Your task to perform on an android device: toggle location history Image 0: 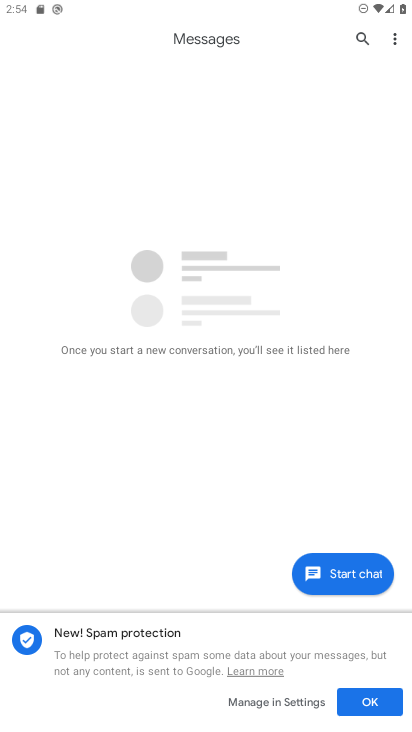
Step 0: press home button
Your task to perform on an android device: toggle location history Image 1: 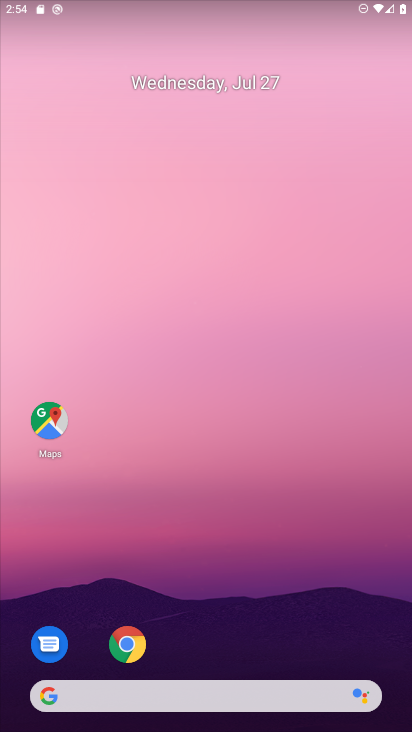
Step 1: drag from (216, 576) to (245, 40)
Your task to perform on an android device: toggle location history Image 2: 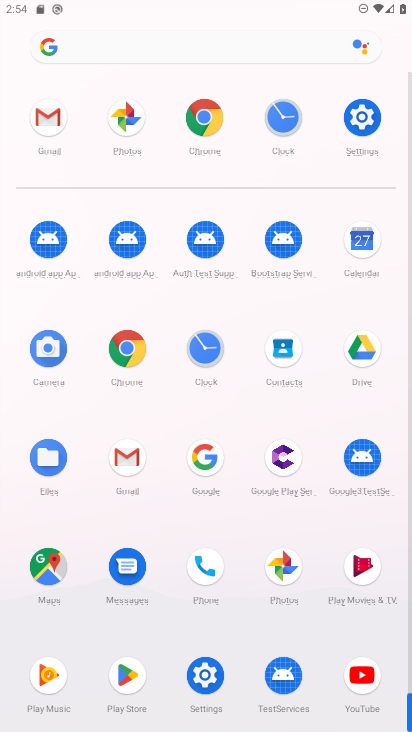
Step 2: click (205, 679)
Your task to perform on an android device: toggle location history Image 3: 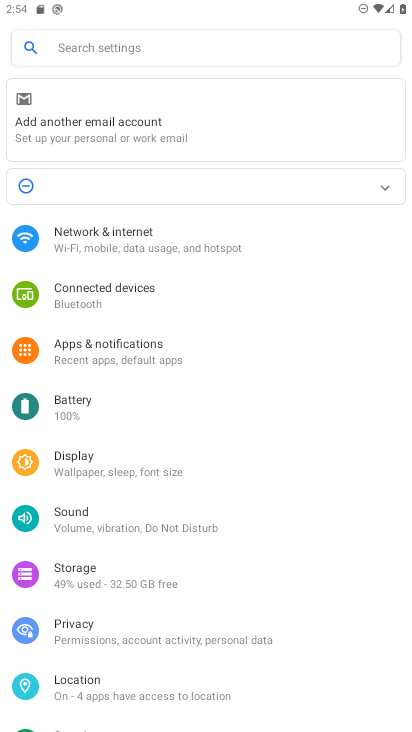
Step 3: click (113, 699)
Your task to perform on an android device: toggle location history Image 4: 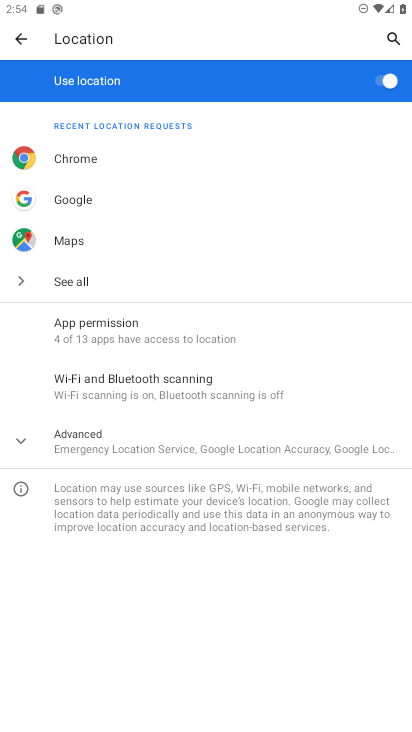
Step 4: click (135, 436)
Your task to perform on an android device: toggle location history Image 5: 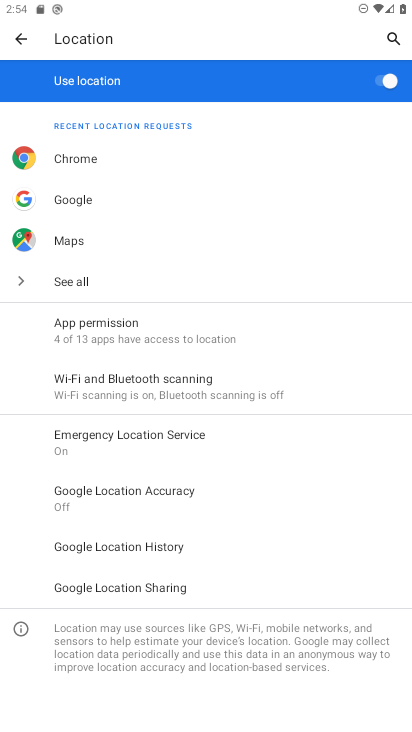
Step 5: click (139, 543)
Your task to perform on an android device: toggle location history Image 6: 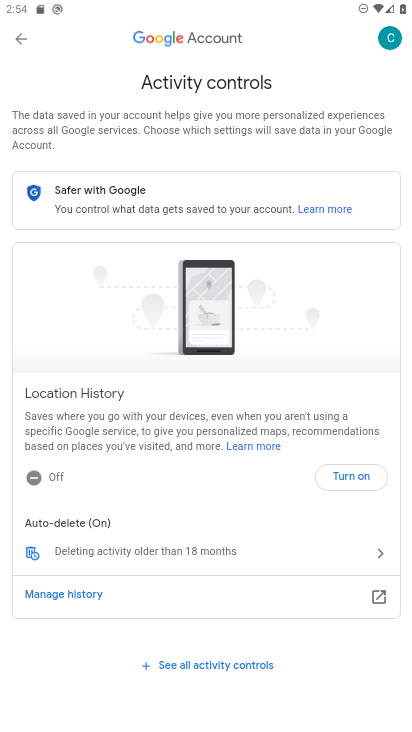
Step 6: click (338, 475)
Your task to perform on an android device: toggle location history Image 7: 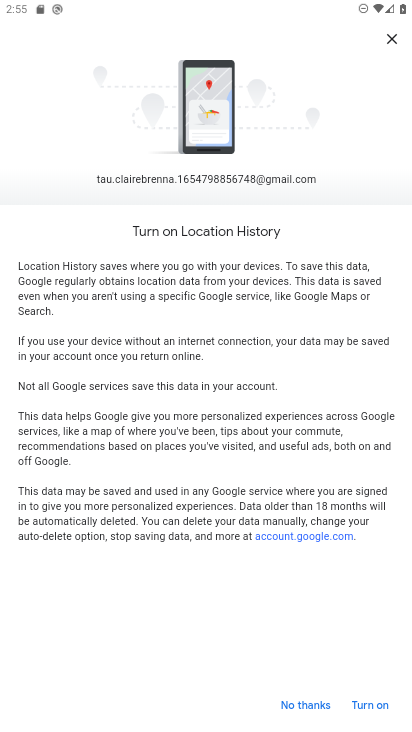
Step 7: click (388, 703)
Your task to perform on an android device: toggle location history Image 8: 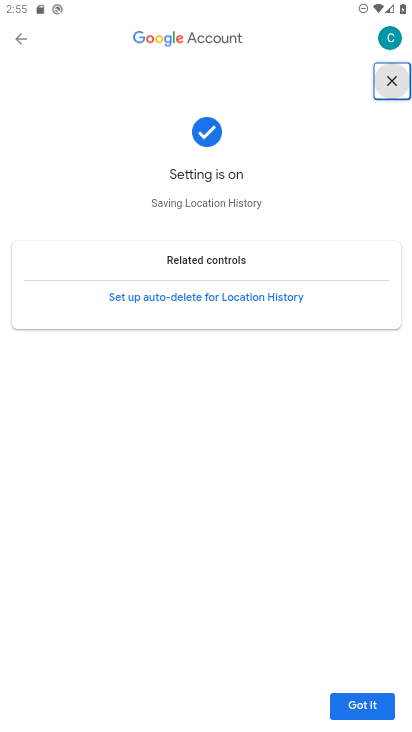
Step 8: click (378, 708)
Your task to perform on an android device: toggle location history Image 9: 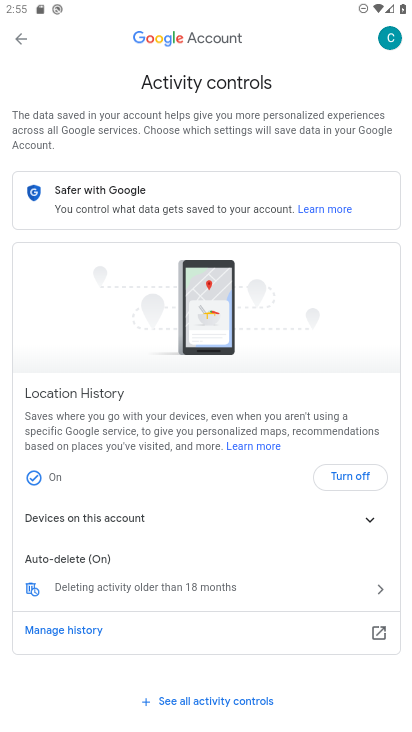
Step 9: task complete